Your task to perform on an android device: Open location settings Image 0: 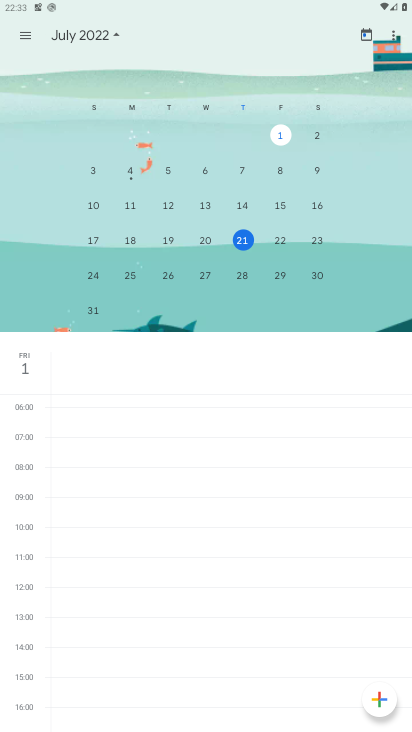
Step 0: press home button
Your task to perform on an android device: Open location settings Image 1: 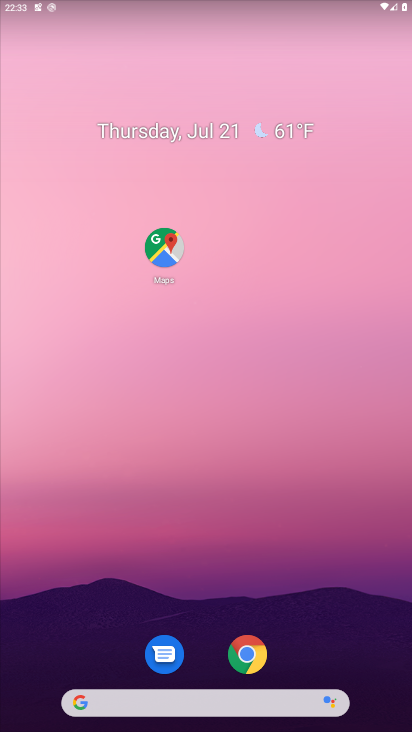
Step 1: drag from (128, 449) to (235, 196)
Your task to perform on an android device: Open location settings Image 2: 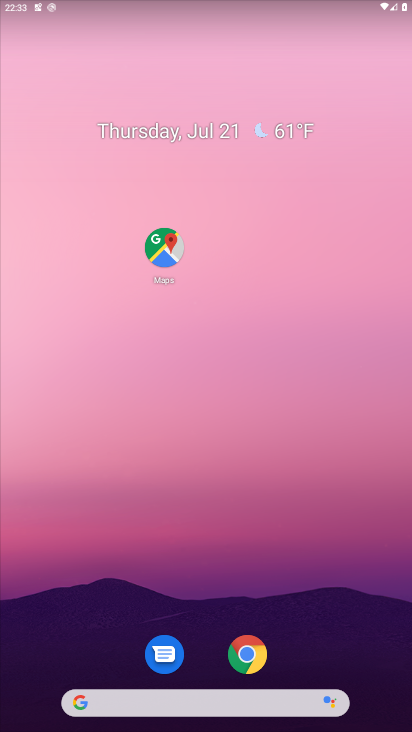
Step 2: drag from (73, 682) to (233, 159)
Your task to perform on an android device: Open location settings Image 3: 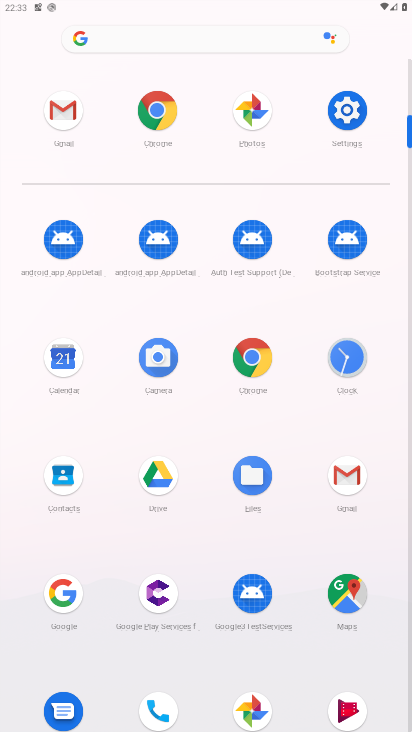
Step 3: click (340, 122)
Your task to perform on an android device: Open location settings Image 4: 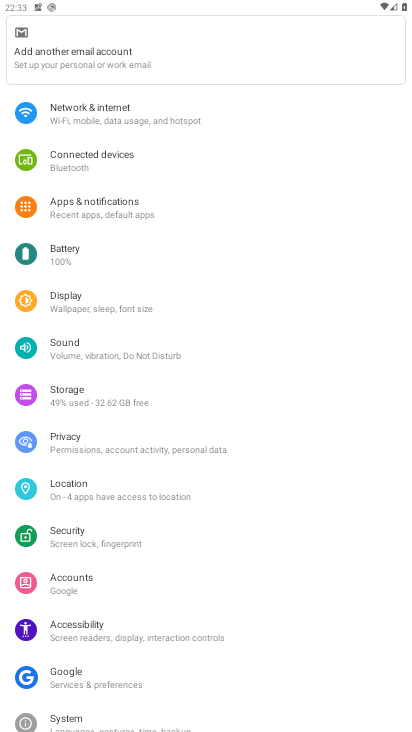
Step 4: click (106, 487)
Your task to perform on an android device: Open location settings Image 5: 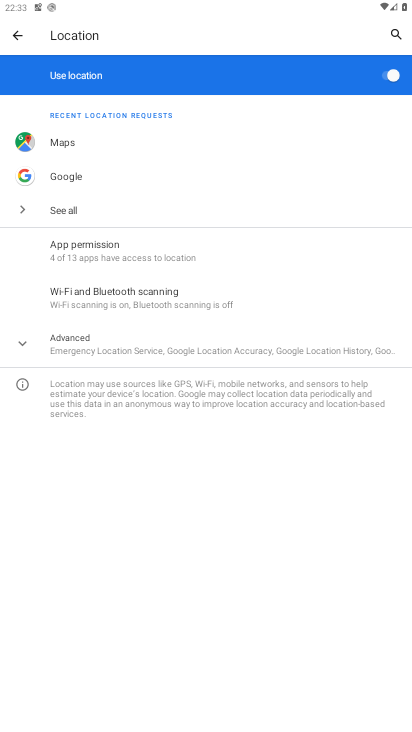
Step 5: click (115, 338)
Your task to perform on an android device: Open location settings Image 6: 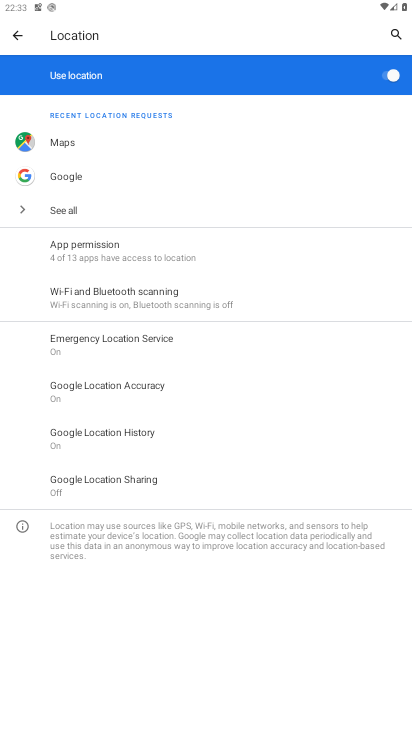
Step 6: task complete